Your task to perform on an android device: Go to display settings Image 0: 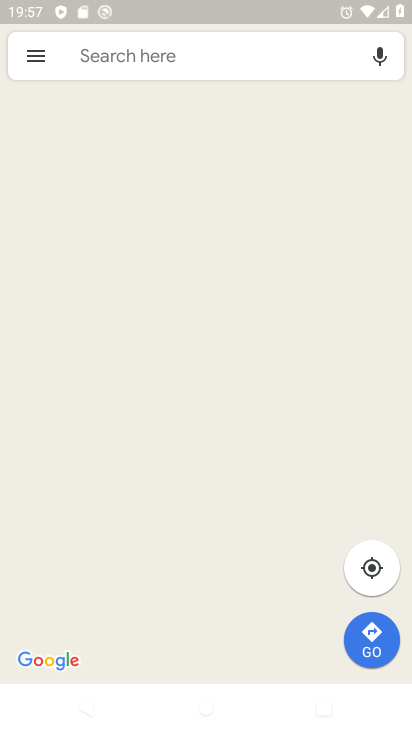
Step 0: click (139, 213)
Your task to perform on an android device: Go to display settings Image 1: 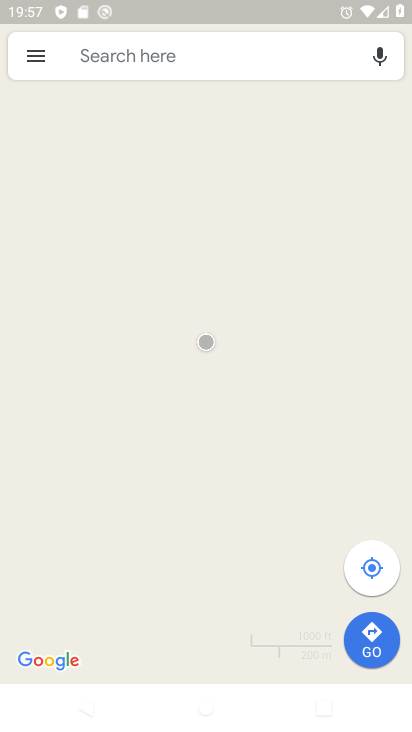
Step 1: drag from (253, 574) to (246, 354)
Your task to perform on an android device: Go to display settings Image 2: 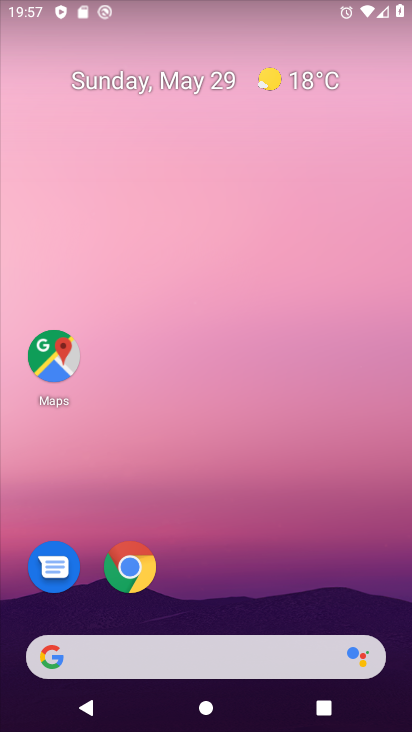
Step 2: click (12, 428)
Your task to perform on an android device: Go to display settings Image 3: 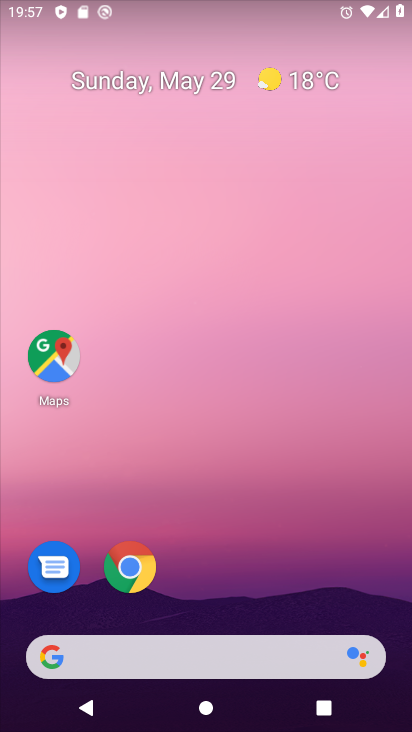
Step 3: task complete